Your task to perform on an android device: stop showing notifications on the lock screen Image 0: 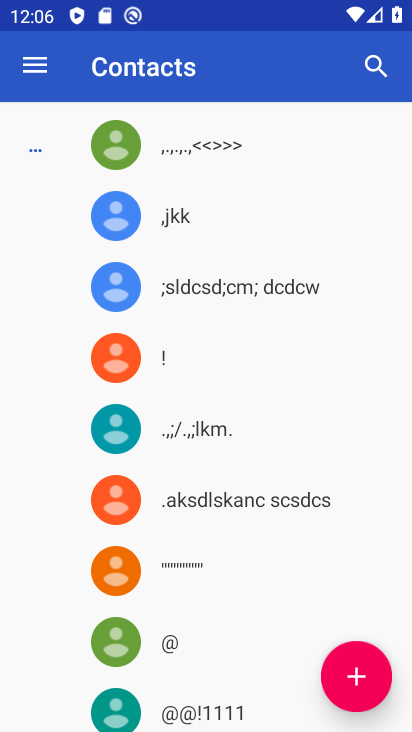
Step 0: press home button
Your task to perform on an android device: stop showing notifications on the lock screen Image 1: 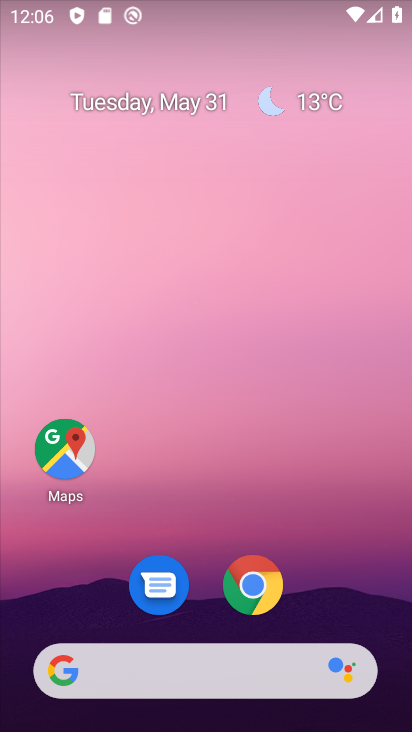
Step 1: drag from (293, 548) to (276, 38)
Your task to perform on an android device: stop showing notifications on the lock screen Image 2: 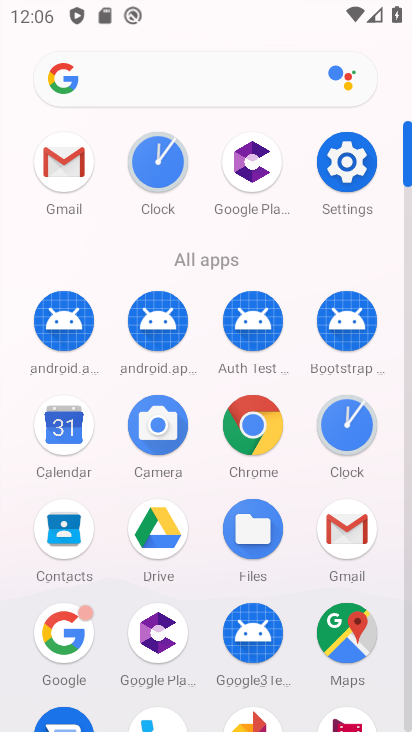
Step 2: click (346, 165)
Your task to perform on an android device: stop showing notifications on the lock screen Image 3: 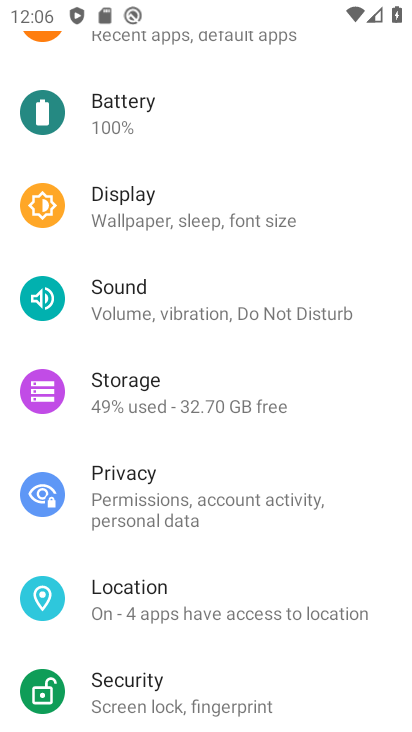
Step 3: drag from (259, 556) to (250, 112)
Your task to perform on an android device: stop showing notifications on the lock screen Image 4: 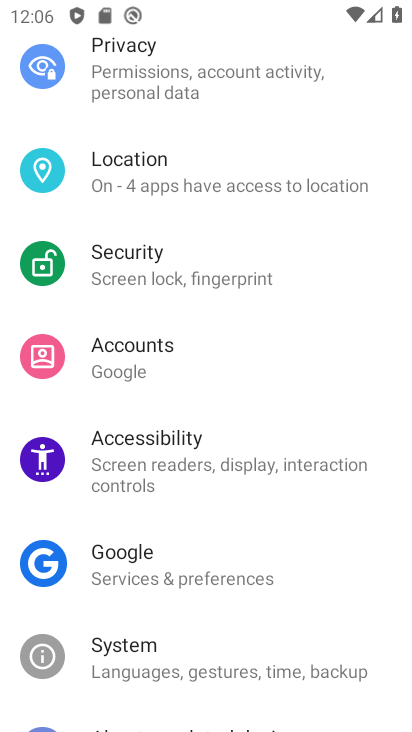
Step 4: drag from (268, 152) to (254, 669)
Your task to perform on an android device: stop showing notifications on the lock screen Image 5: 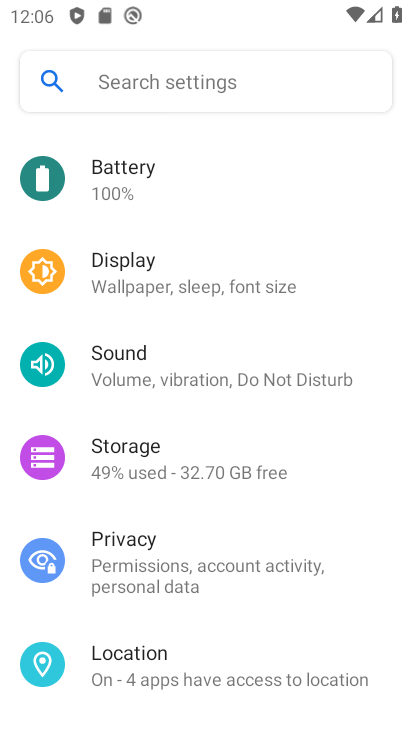
Step 5: drag from (243, 219) to (183, 604)
Your task to perform on an android device: stop showing notifications on the lock screen Image 6: 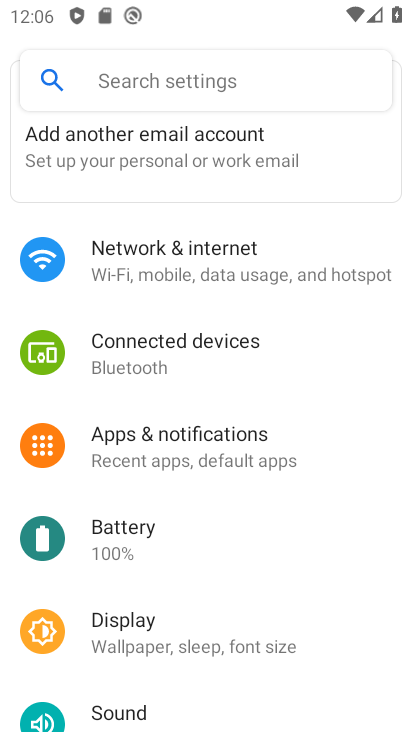
Step 6: click (203, 450)
Your task to perform on an android device: stop showing notifications on the lock screen Image 7: 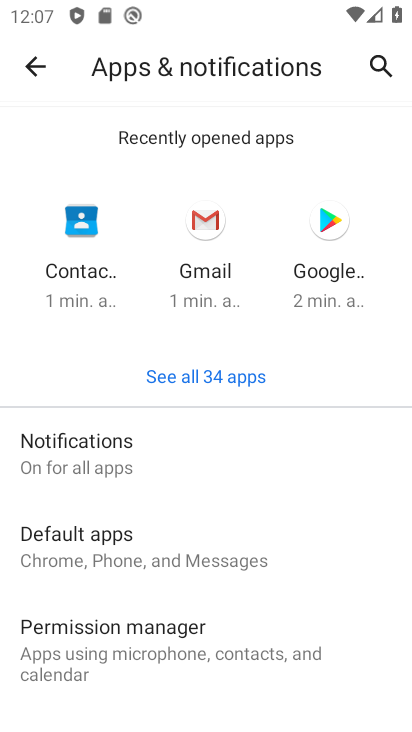
Step 7: click (203, 448)
Your task to perform on an android device: stop showing notifications on the lock screen Image 8: 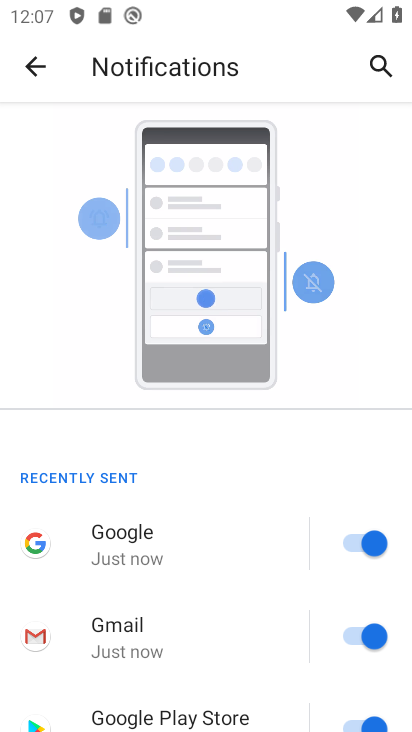
Step 8: drag from (232, 660) to (304, 283)
Your task to perform on an android device: stop showing notifications on the lock screen Image 9: 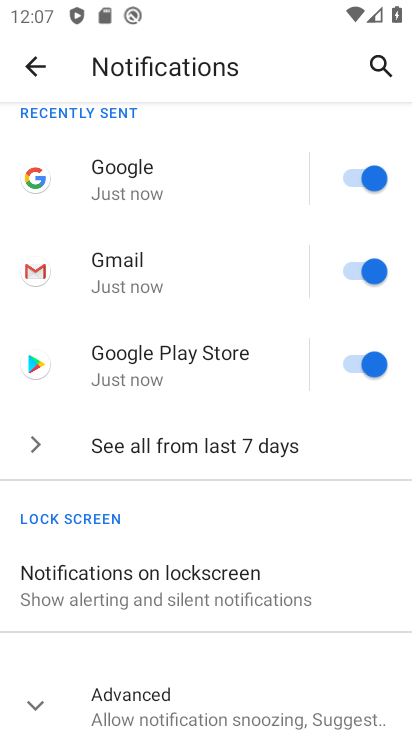
Step 9: click (198, 587)
Your task to perform on an android device: stop showing notifications on the lock screen Image 10: 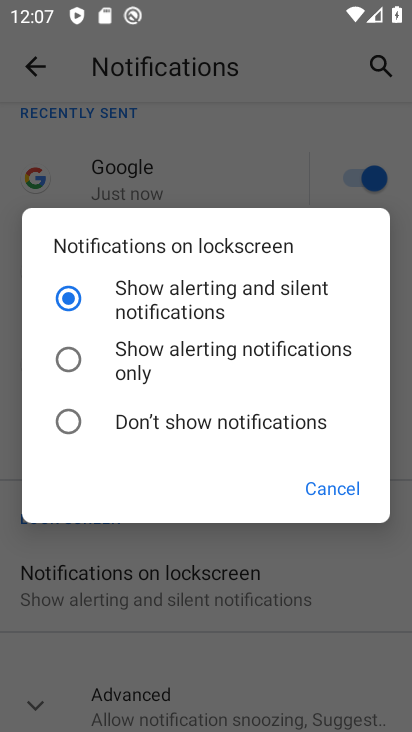
Step 10: click (61, 417)
Your task to perform on an android device: stop showing notifications on the lock screen Image 11: 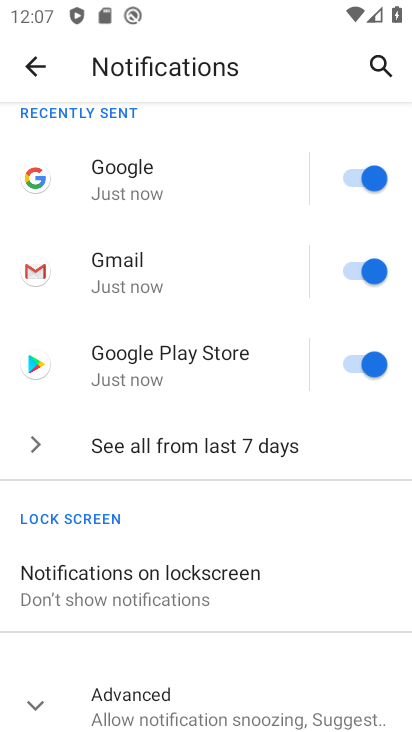
Step 11: task complete